Your task to perform on an android device: Turn off the flashlight Image 0: 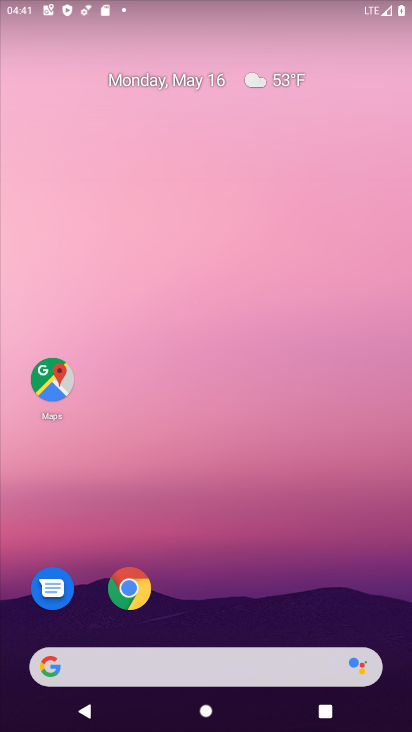
Step 0: drag from (232, 574) to (354, 9)
Your task to perform on an android device: Turn off the flashlight Image 1: 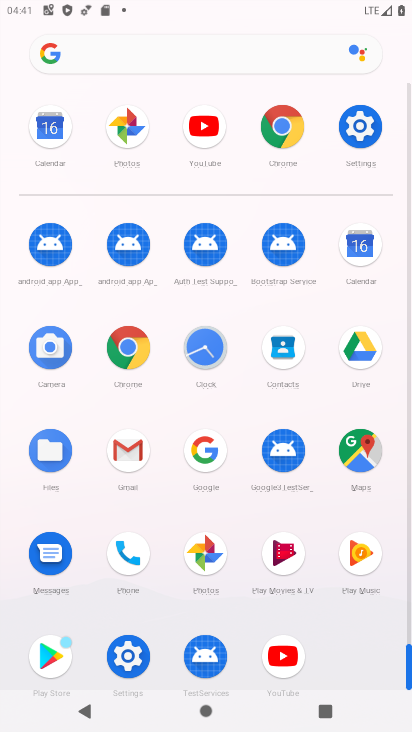
Step 1: click (124, 655)
Your task to perform on an android device: Turn off the flashlight Image 2: 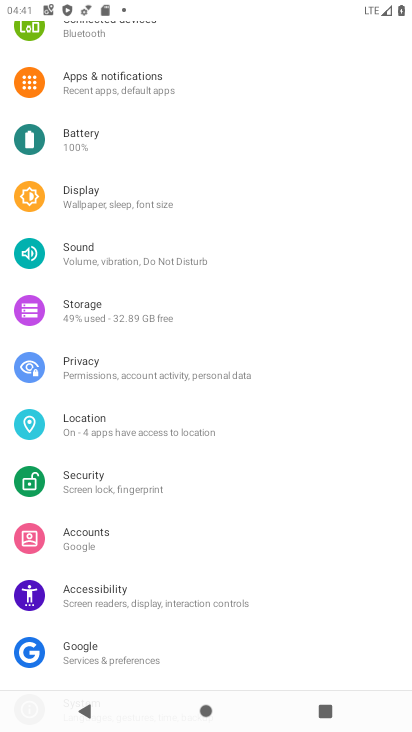
Step 2: drag from (226, 153) to (230, 602)
Your task to perform on an android device: Turn off the flashlight Image 3: 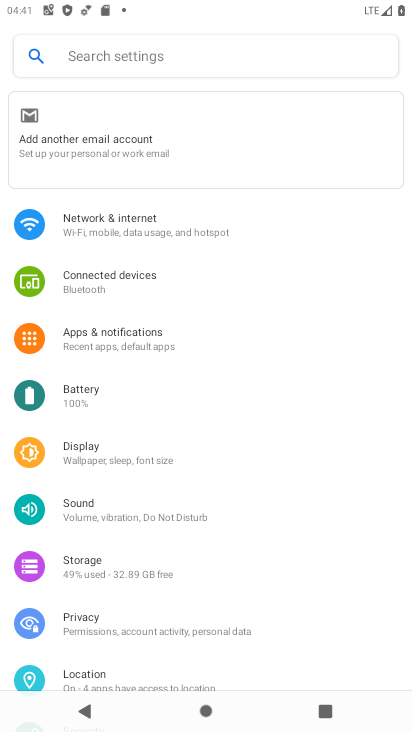
Step 3: click (181, 208)
Your task to perform on an android device: Turn off the flashlight Image 4: 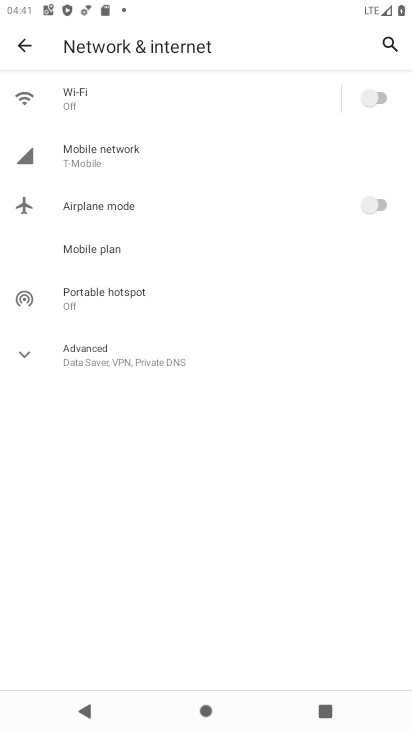
Step 4: click (29, 354)
Your task to perform on an android device: Turn off the flashlight Image 5: 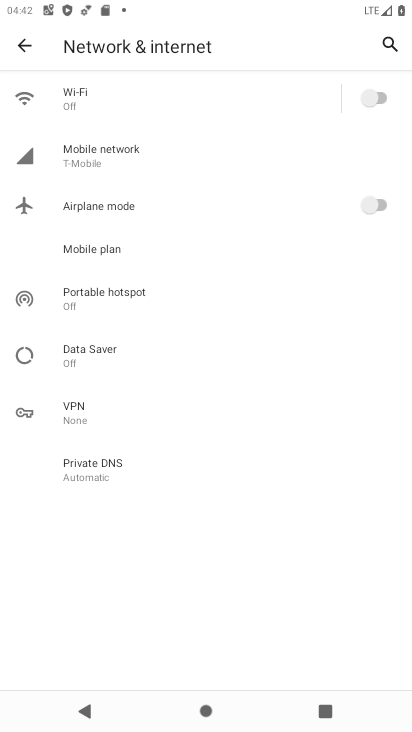
Step 5: task complete